Your task to perform on an android device: Go to Amazon Image 0: 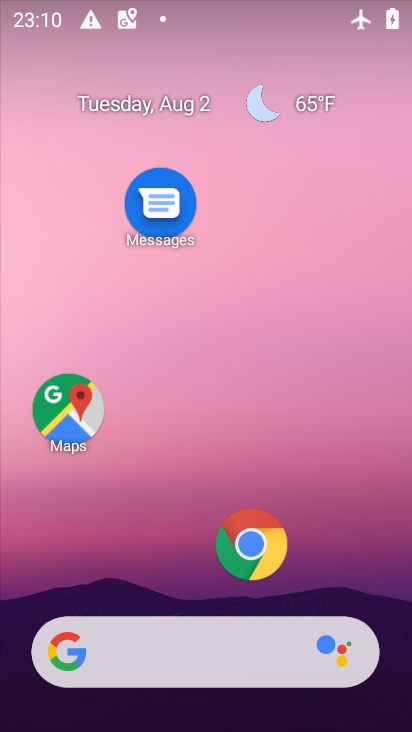
Step 0: drag from (190, 577) to (179, 400)
Your task to perform on an android device: Go to Amazon Image 1: 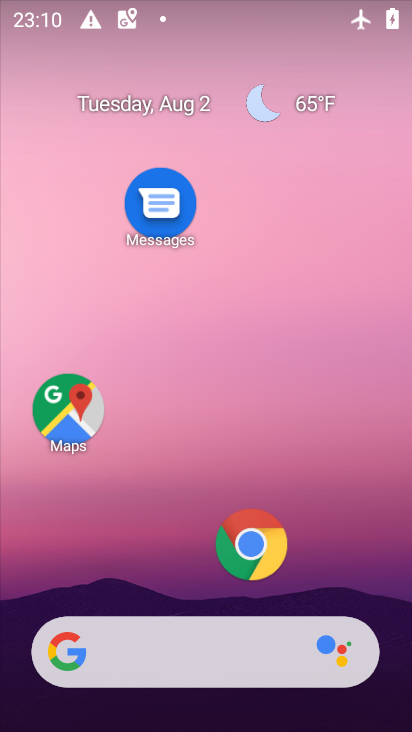
Step 1: click (259, 547)
Your task to perform on an android device: Go to Amazon Image 2: 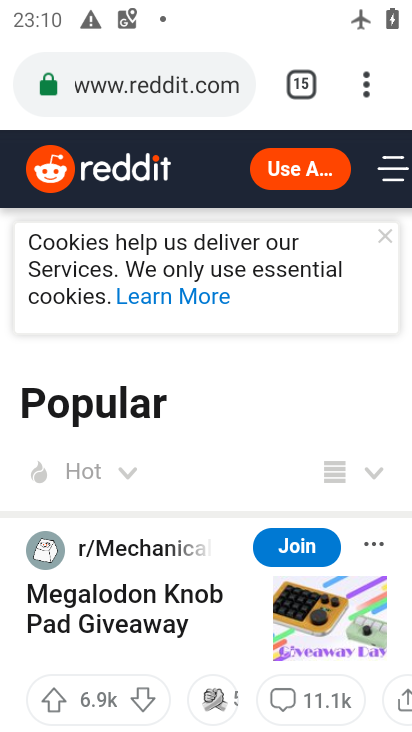
Step 2: drag from (297, 87) to (350, 87)
Your task to perform on an android device: Go to Amazon Image 3: 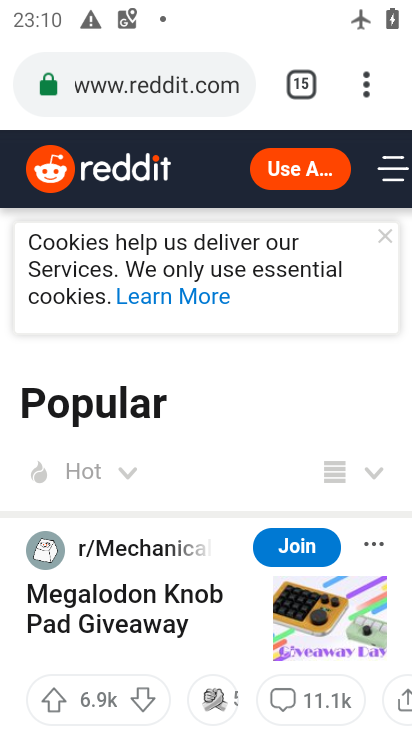
Step 3: click (282, 82)
Your task to perform on an android device: Go to Amazon Image 4: 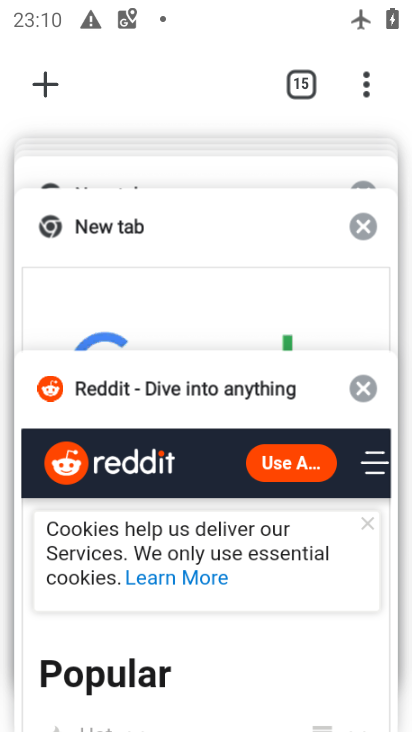
Step 4: click (51, 81)
Your task to perform on an android device: Go to Amazon Image 5: 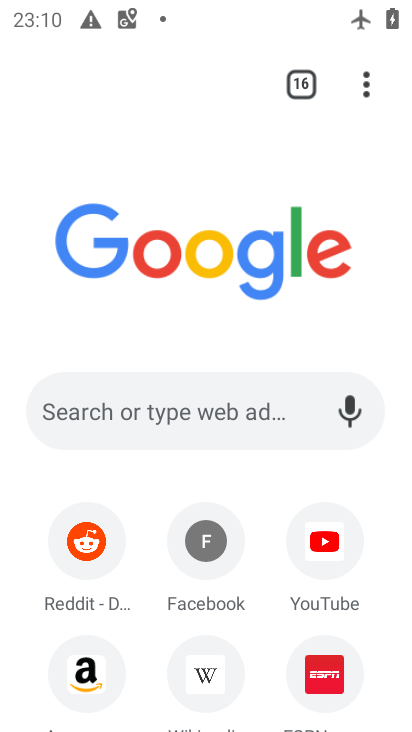
Step 5: click (108, 676)
Your task to perform on an android device: Go to Amazon Image 6: 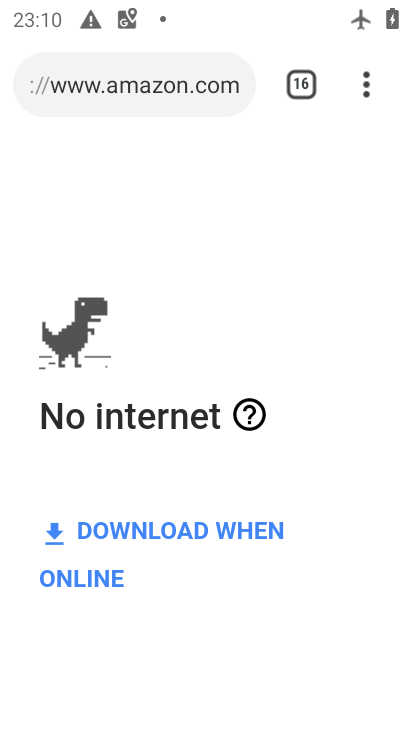
Step 6: task complete